Your task to perform on an android device: set default search engine in the chrome app Image 0: 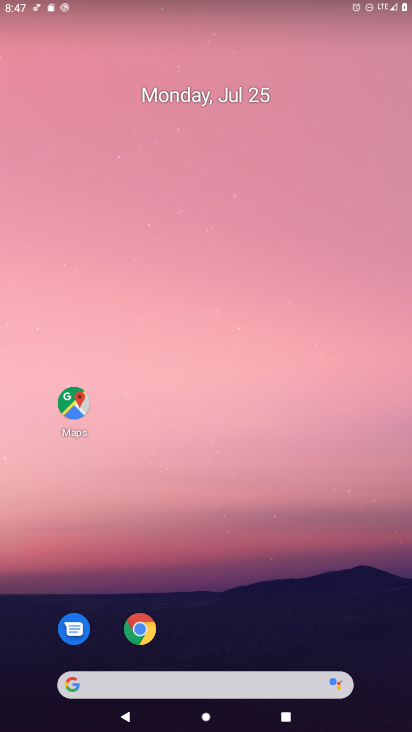
Step 0: click (140, 629)
Your task to perform on an android device: set default search engine in the chrome app Image 1: 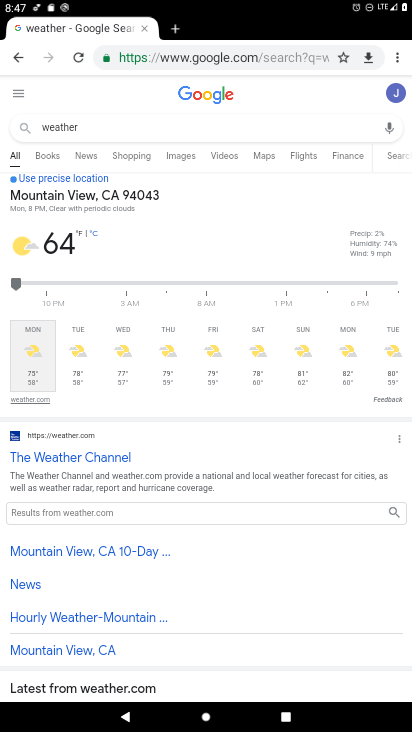
Step 1: click (397, 56)
Your task to perform on an android device: set default search engine in the chrome app Image 2: 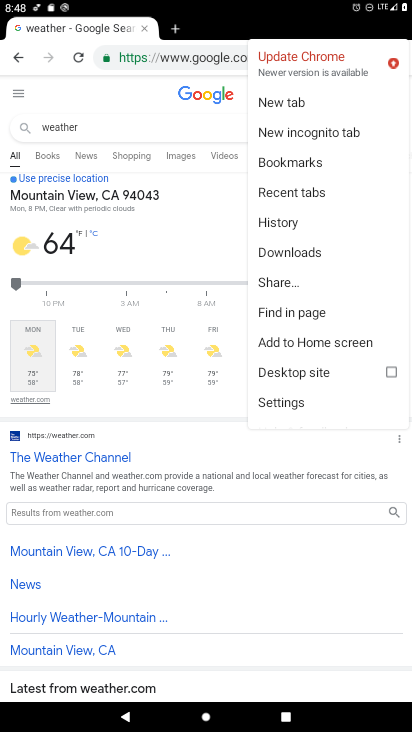
Step 2: click (288, 401)
Your task to perform on an android device: set default search engine in the chrome app Image 3: 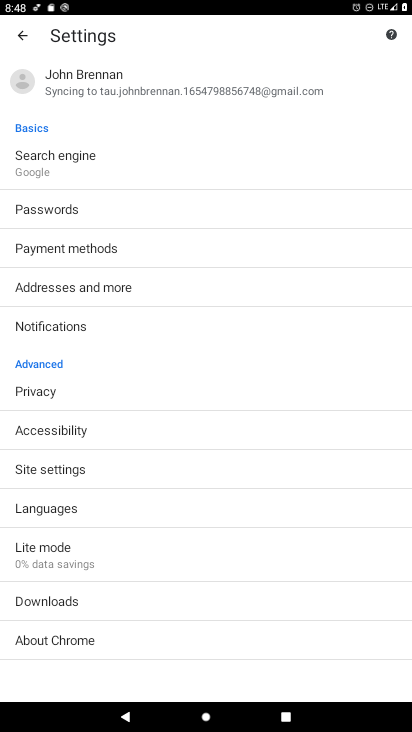
Step 3: click (49, 161)
Your task to perform on an android device: set default search engine in the chrome app Image 4: 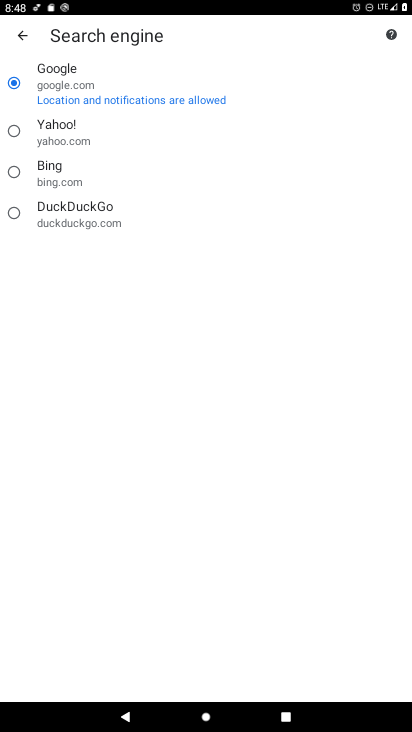
Step 4: task complete